Your task to perform on an android device: Go to Yahoo.com Image 0: 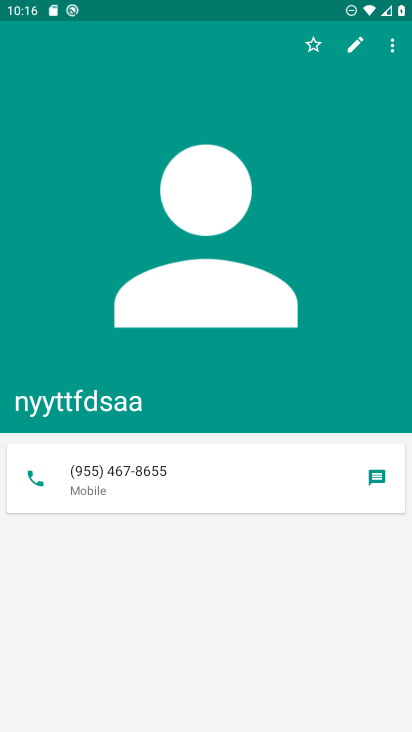
Step 0: press home button
Your task to perform on an android device: Go to Yahoo.com Image 1: 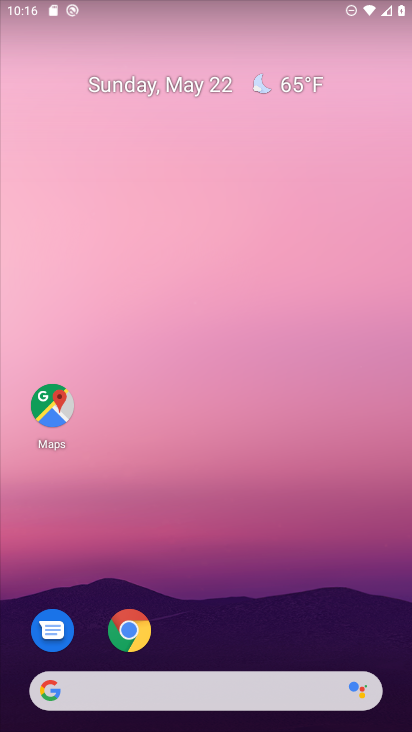
Step 1: click (135, 642)
Your task to perform on an android device: Go to Yahoo.com Image 2: 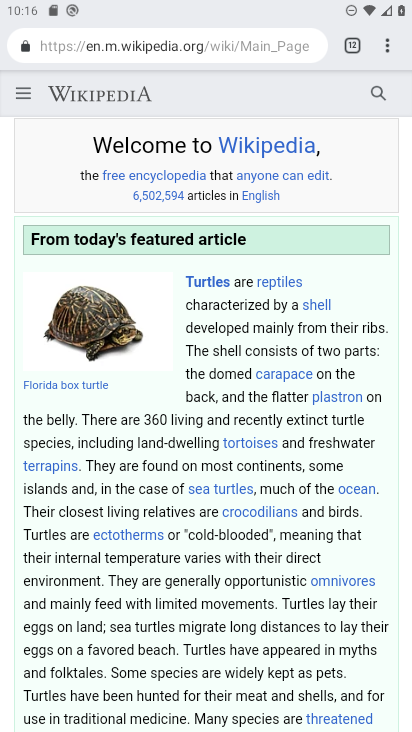
Step 2: drag from (385, 51) to (278, 89)
Your task to perform on an android device: Go to Yahoo.com Image 3: 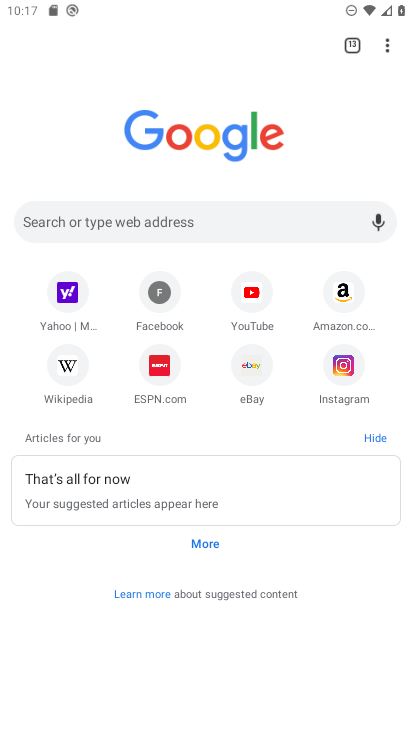
Step 3: click (67, 293)
Your task to perform on an android device: Go to Yahoo.com Image 4: 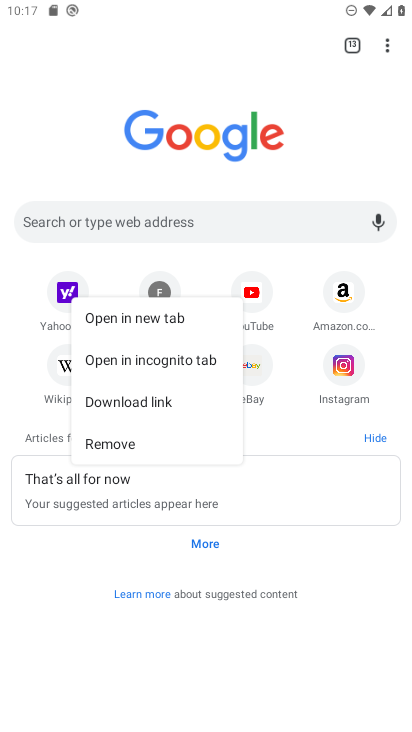
Step 4: click (67, 292)
Your task to perform on an android device: Go to Yahoo.com Image 5: 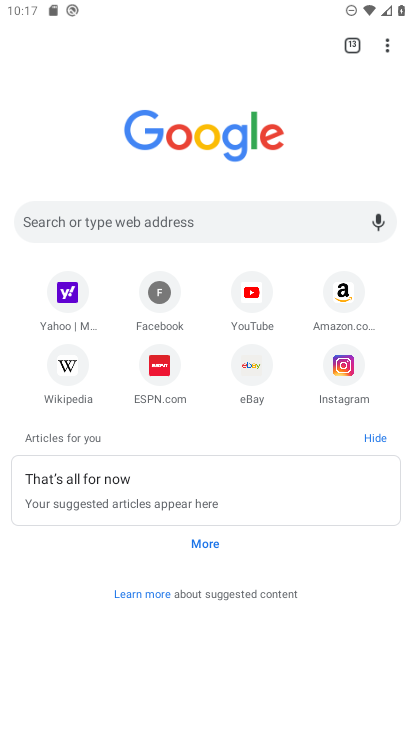
Step 5: click (66, 298)
Your task to perform on an android device: Go to Yahoo.com Image 6: 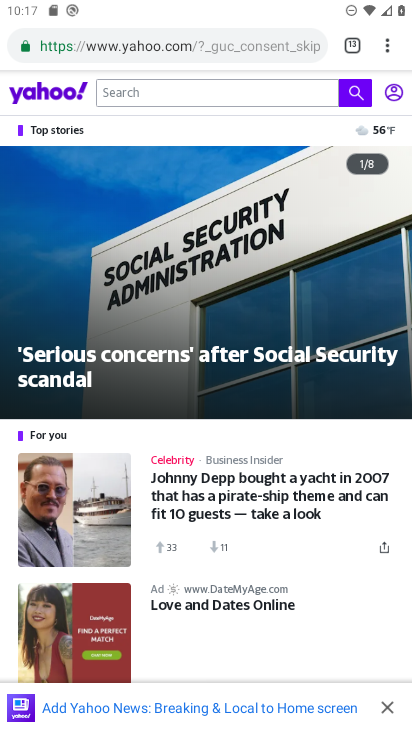
Step 6: task complete